Your task to perform on an android device: Search for "macbook air" on ebay.com, select the first entry, and add it to the cart. Image 0: 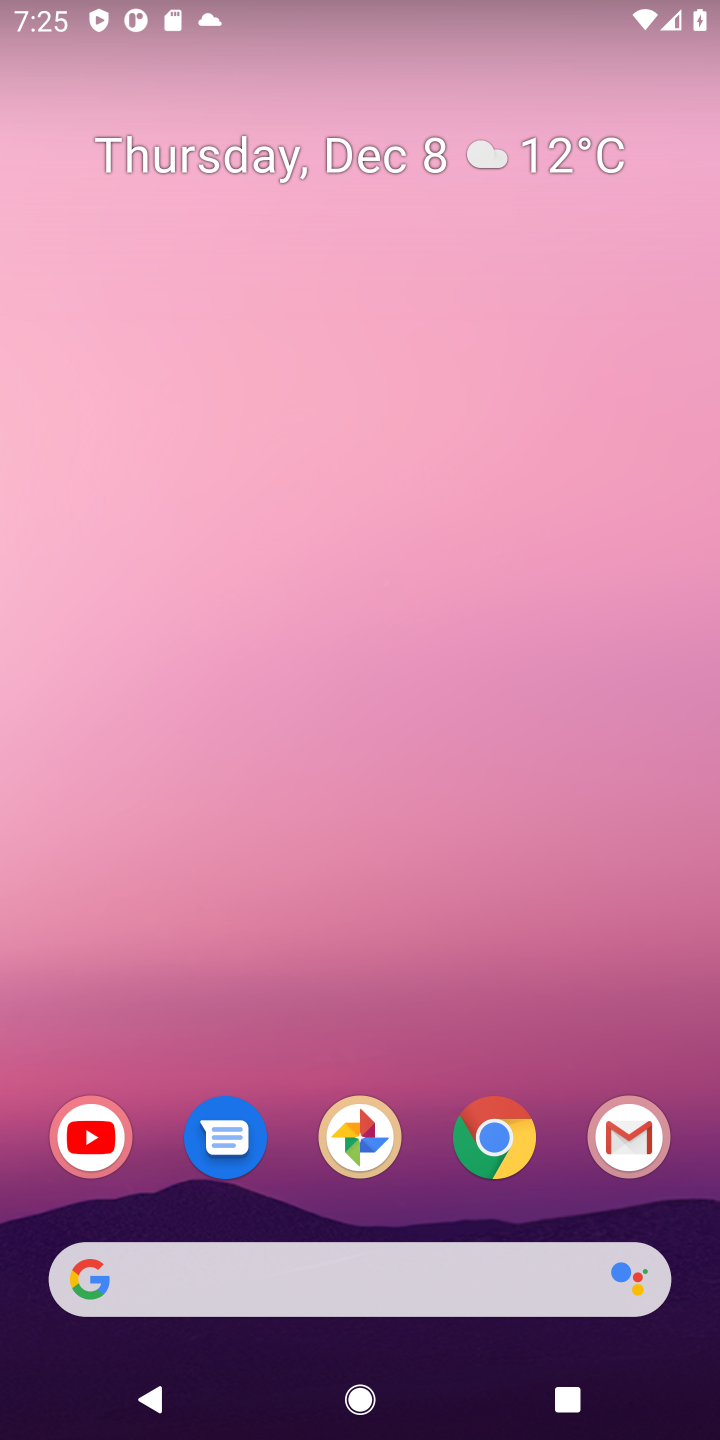
Step 0: click (501, 1154)
Your task to perform on an android device: Search for "macbook air" on ebay.com, select the first entry, and add it to the cart. Image 1: 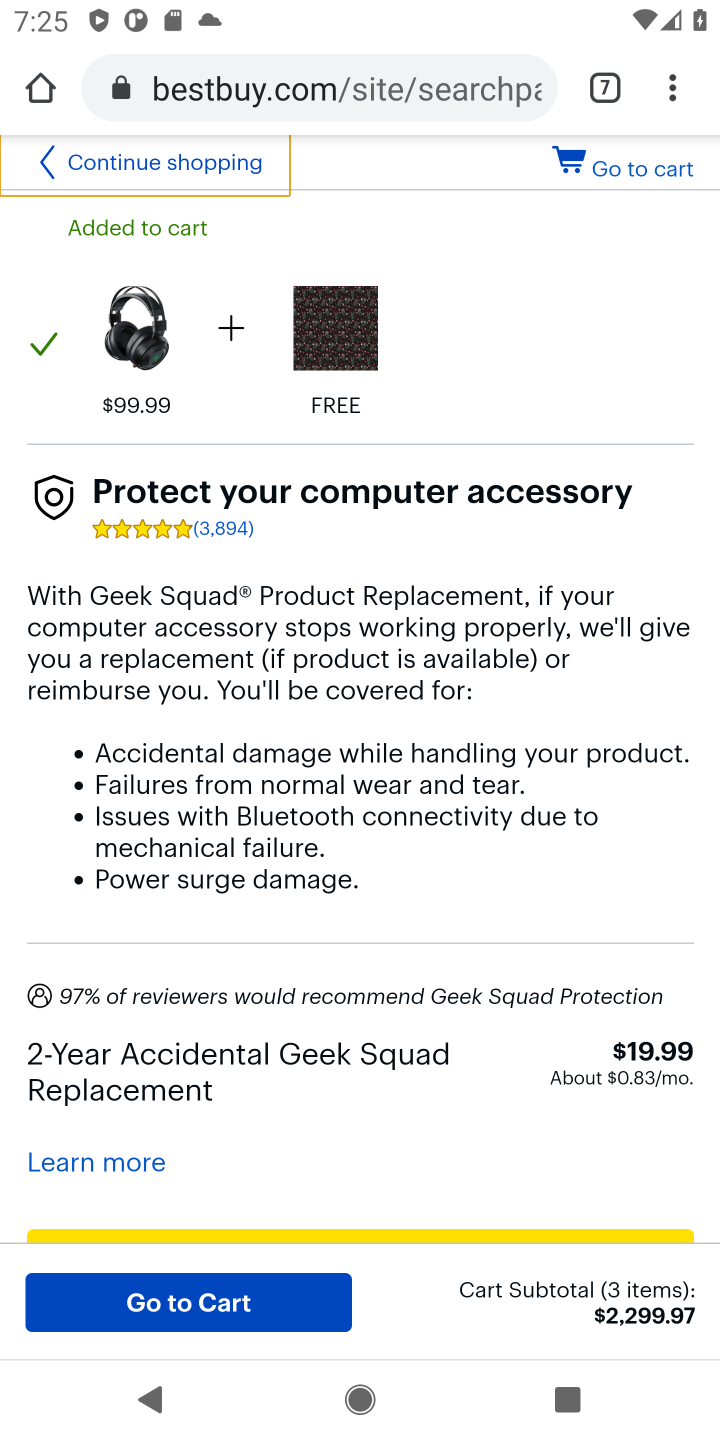
Step 1: click (192, 156)
Your task to perform on an android device: Search for "macbook air" on ebay.com, select the first entry, and add it to the cart. Image 2: 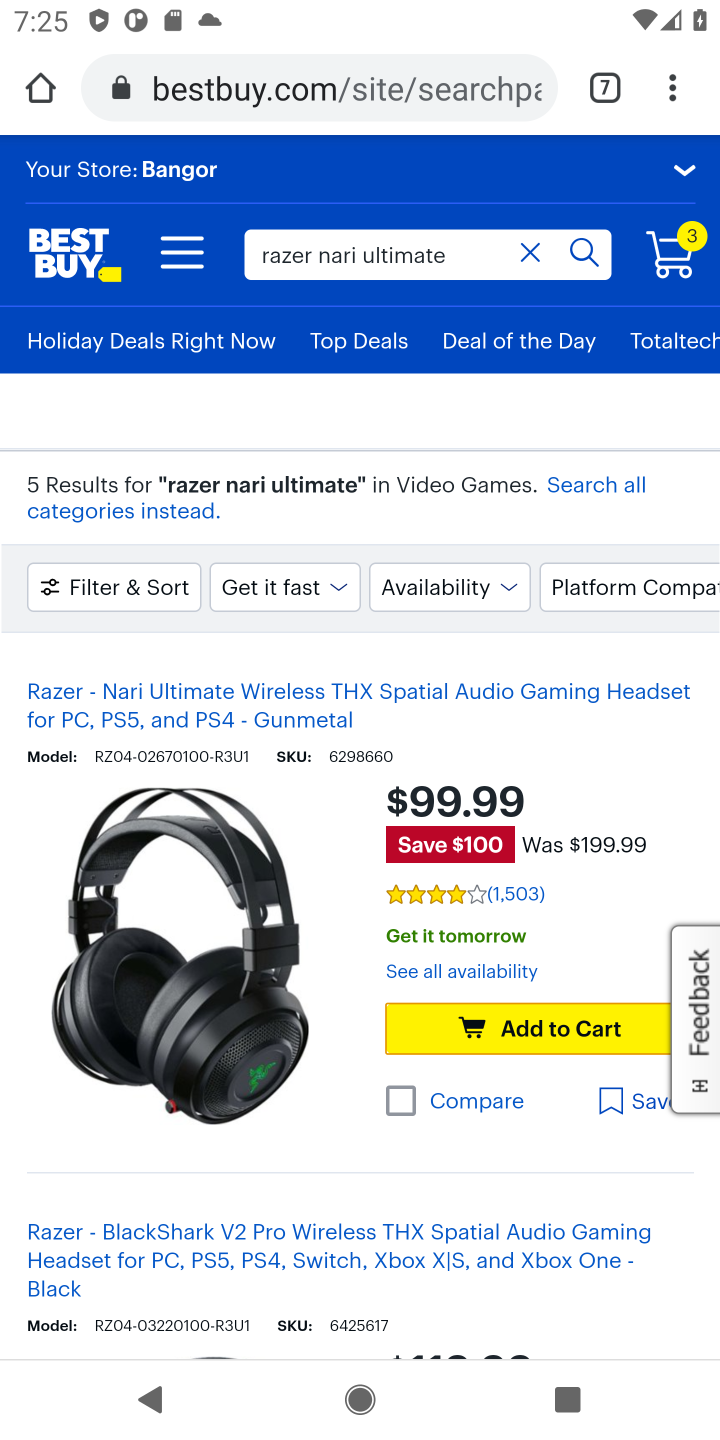
Step 2: click (608, 90)
Your task to perform on an android device: Search for "macbook air" on ebay.com, select the first entry, and add it to the cart. Image 3: 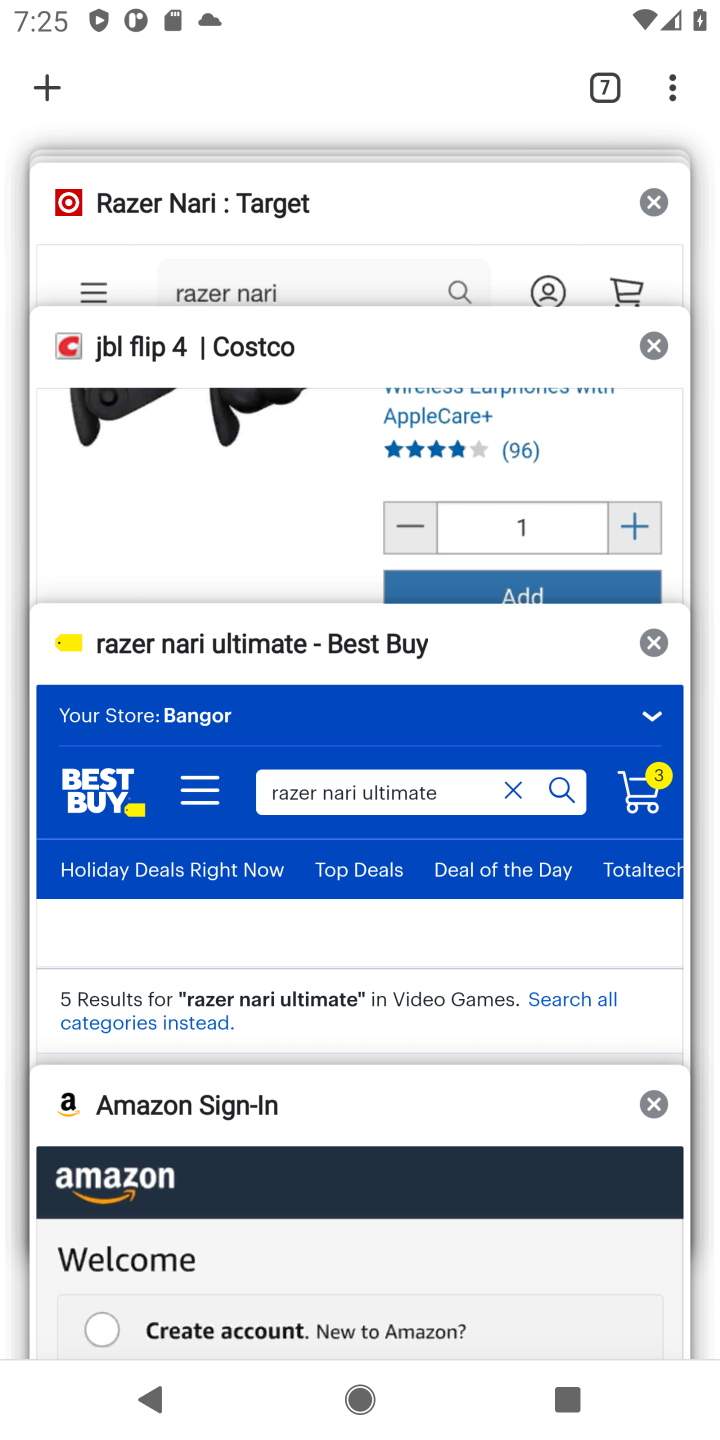
Step 3: drag from (454, 188) to (471, 679)
Your task to perform on an android device: Search for "macbook air" on ebay.com, select the first entry, and add it to the cart. Image 4: 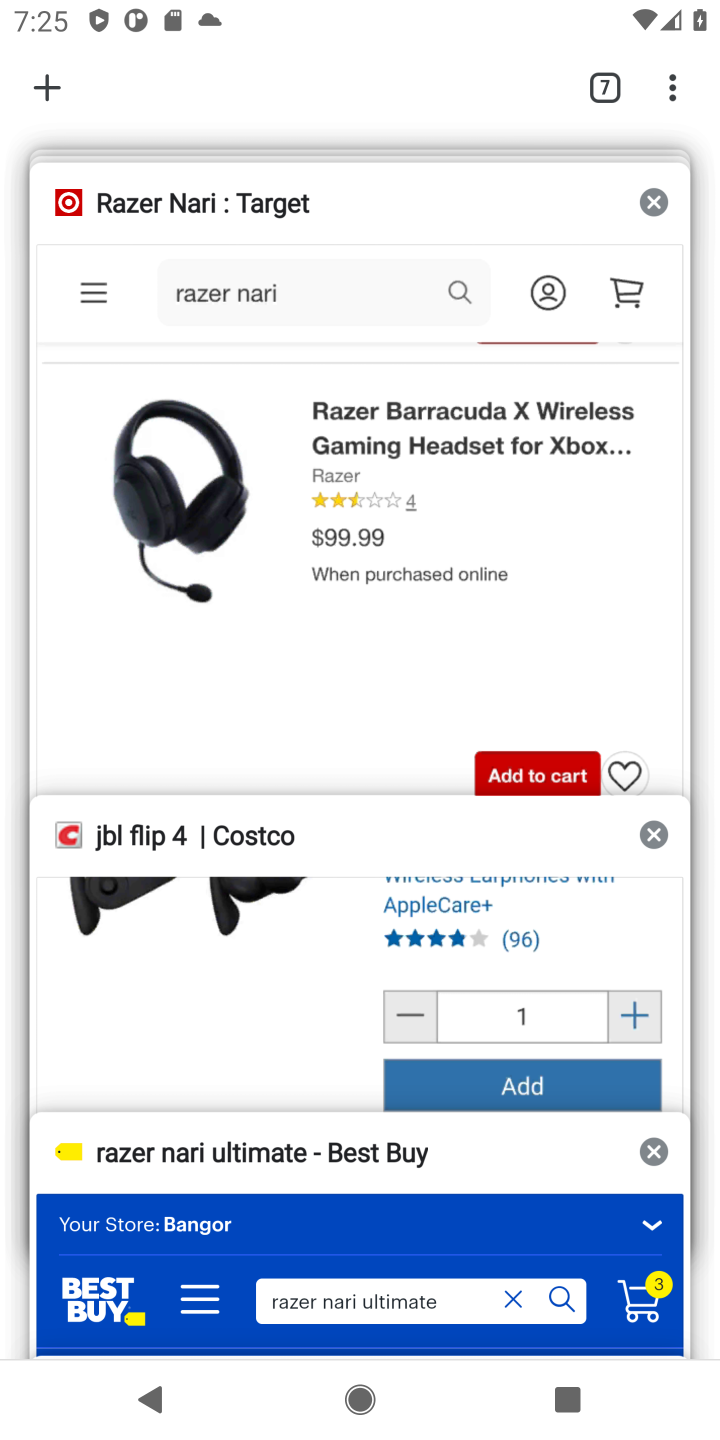
Step 4: drag from (461, 160) to (245, 706)
Your task to perform on an android device: Search for "macbook air" on ebay.com, select the first entry, and add it to the cart. Image 5: 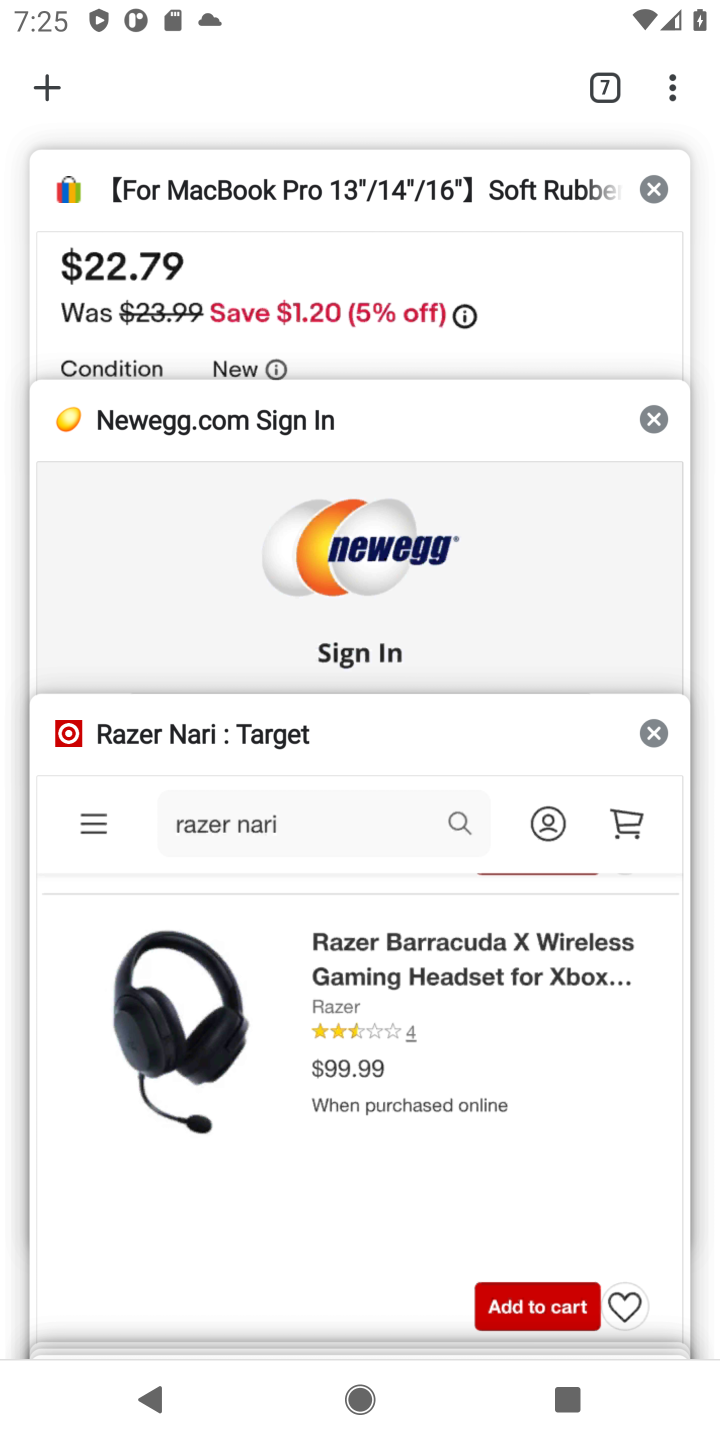
Step 5: click (373, 225)
Your task to perform on an android device: Search for "macbook air" on ebay.com, select the first entry, and add it to the cart. Image 6: 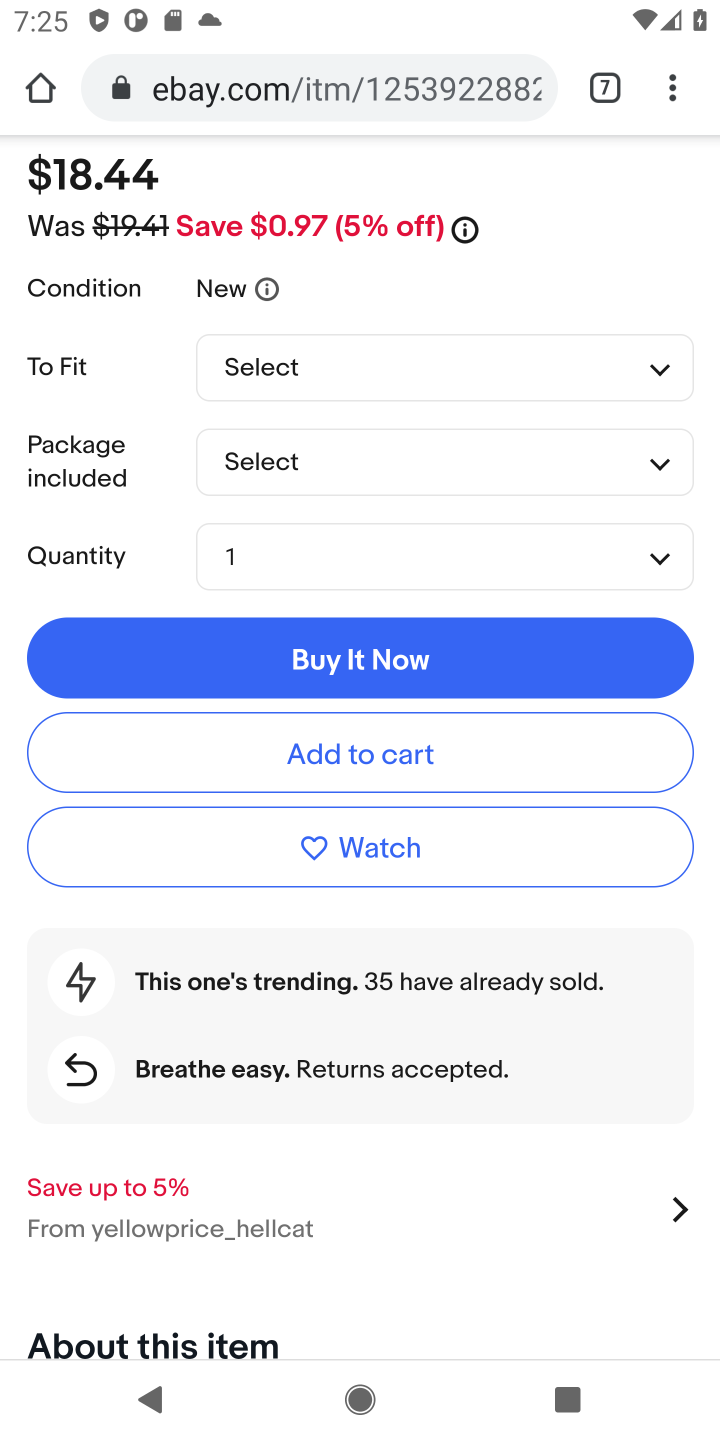
Step 6: drag from (554, 220) to (410, 792)
Your task to perform on an android device: Search for "macbook air" on ebay.com, select the first entry, and add it to the cart. Image 7: 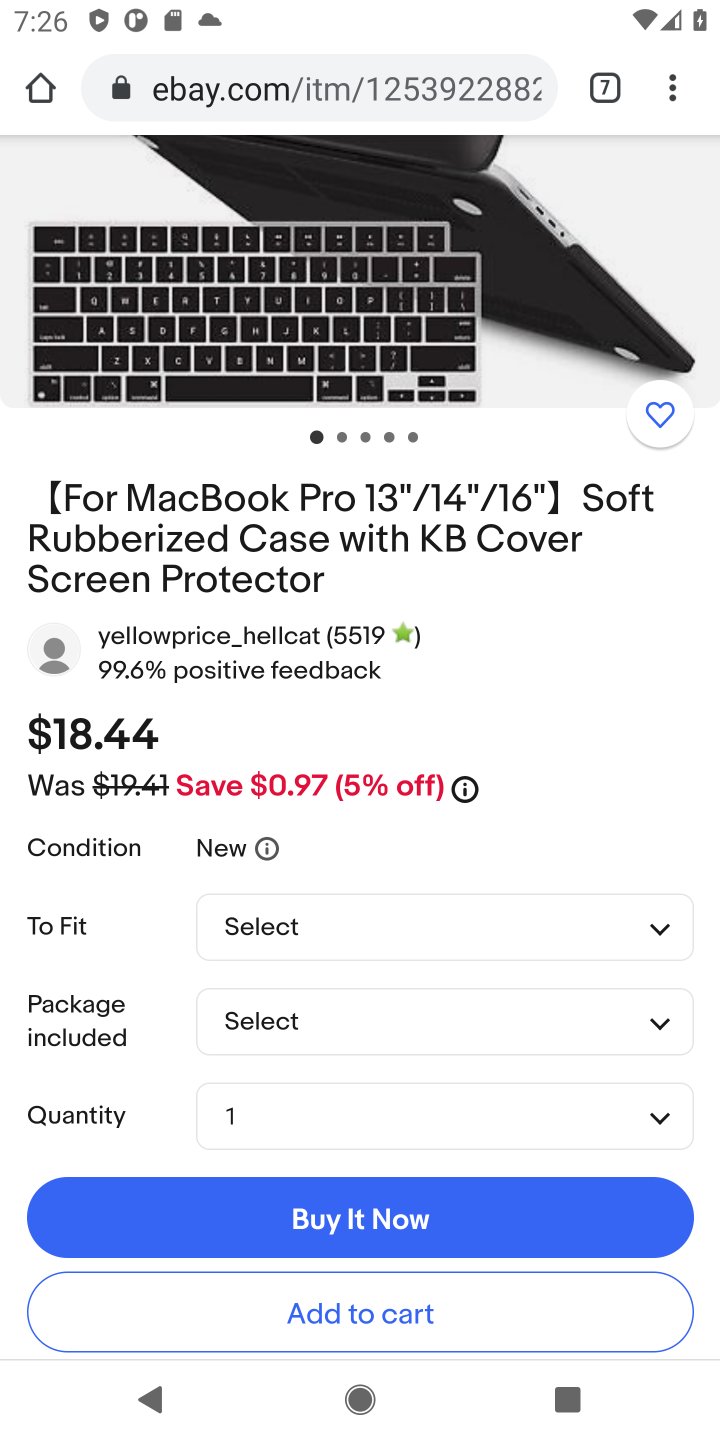
Step 7: drag from (561, 192) to (337, 940)
Your task to perform on an android device: Search for "macbook air" on ebay.com, select the first entry, and add it to the cart. Image 8: 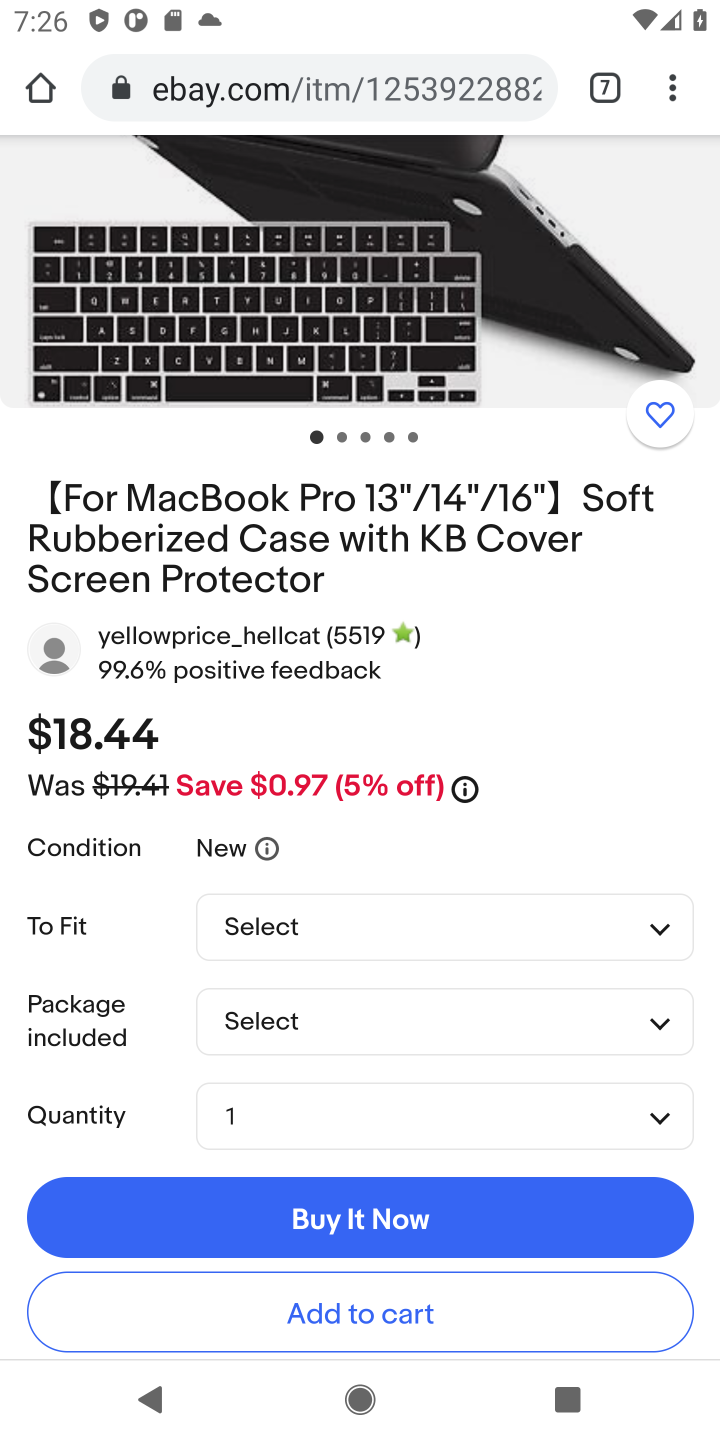
Step 8: drag from (494, 269) to (343, 1196)
Your task to perform on an android device: Search for "macbook air" on ebay.com, select the first entry, and add it to the cart. Image 9: 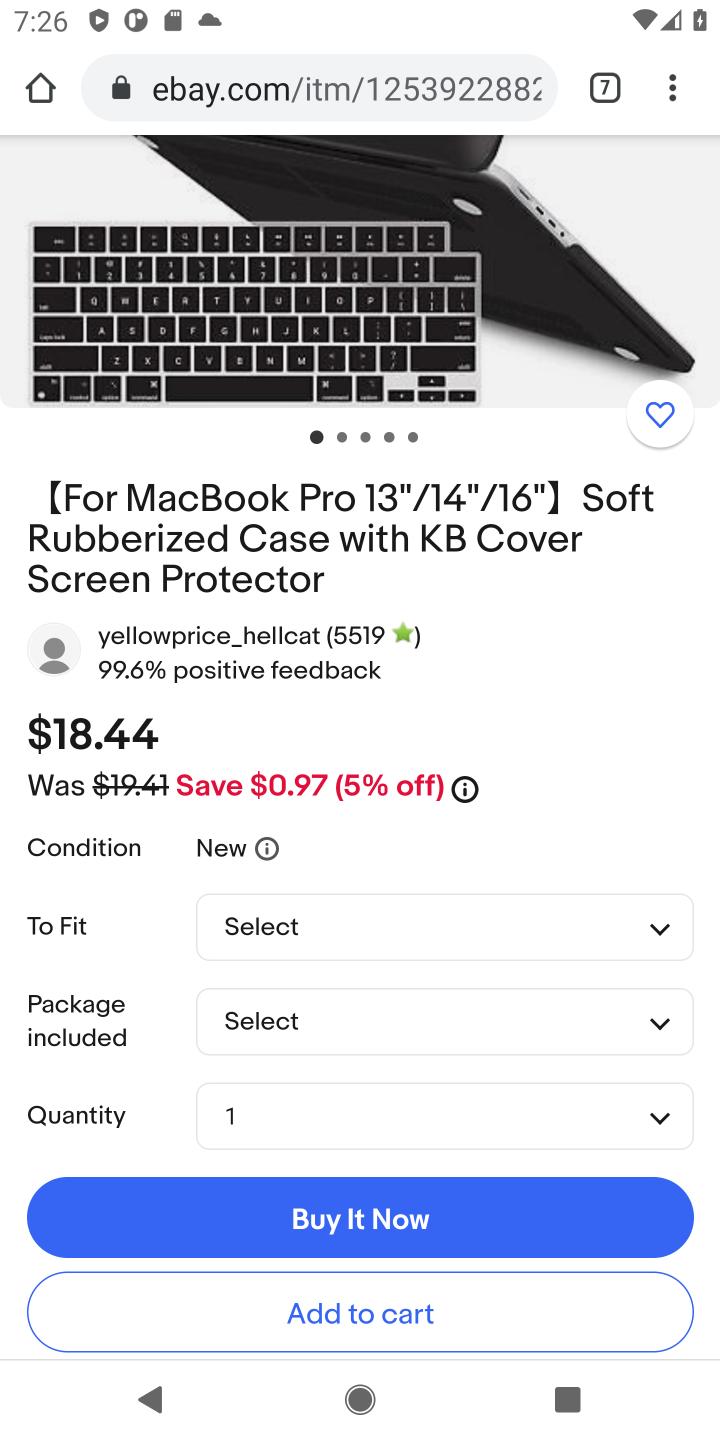
Step 9: drag from (583, 224) to (383, 1415)
Your task to perform on an android device: Search for "macbook air" on ebay.com, select the first entry, and add it to the cart. Image 10: 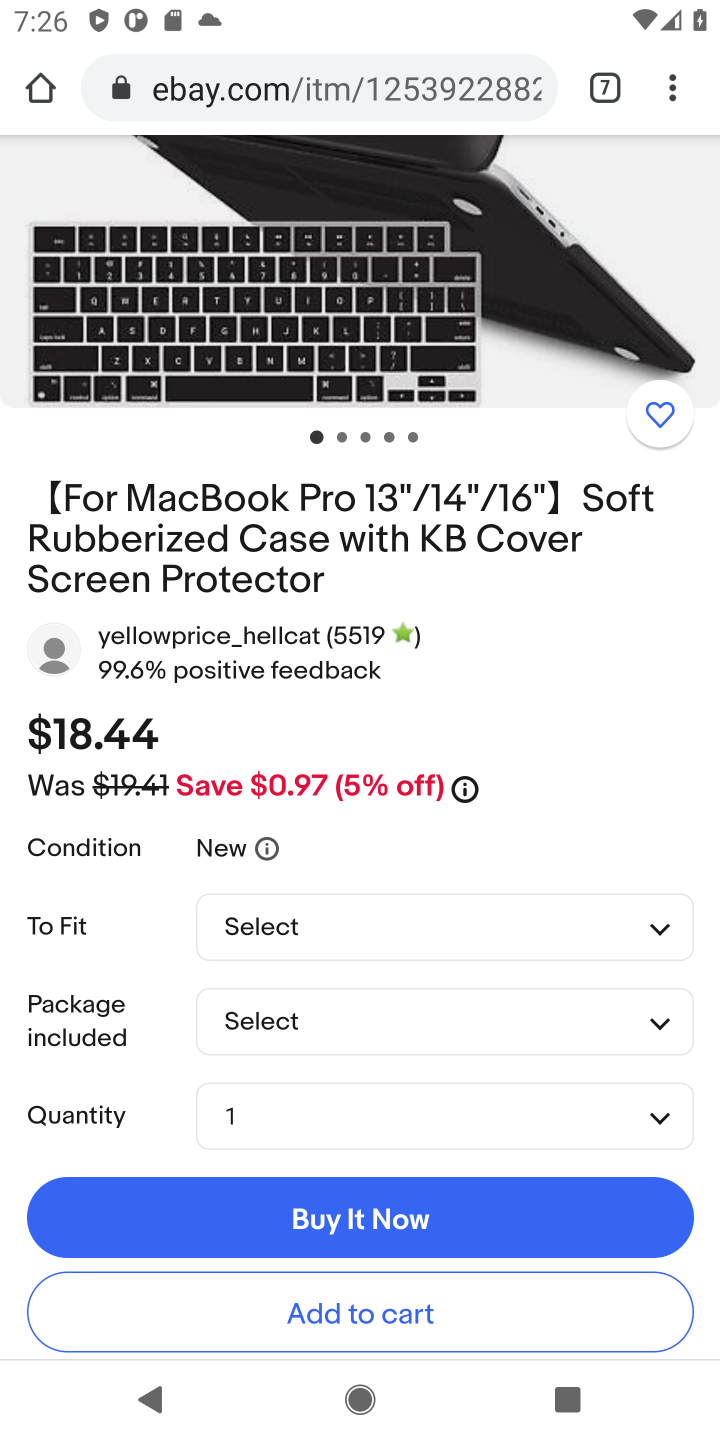
Step 10: drag from (596, 168) to (466, 894)
Your task to perform on an android device: Search for "macbook air" on ebay.com, select the first entry, and add it to the cart. Image 11: 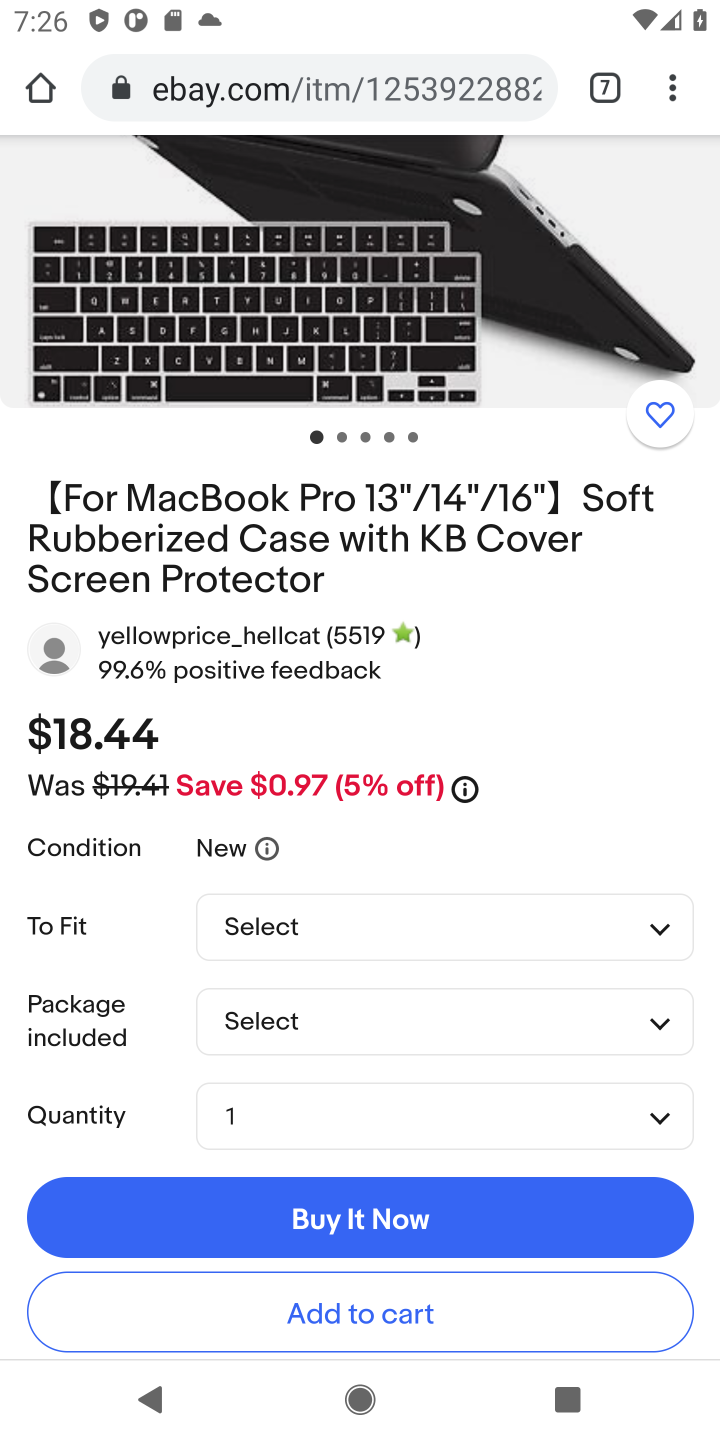
Step 11: drag from (540, 268) to (269, 1290)
Your task to perform on an android device: Search for "macbook air" on ebay.com, select the first entry, and add it to the cart. Image 12: 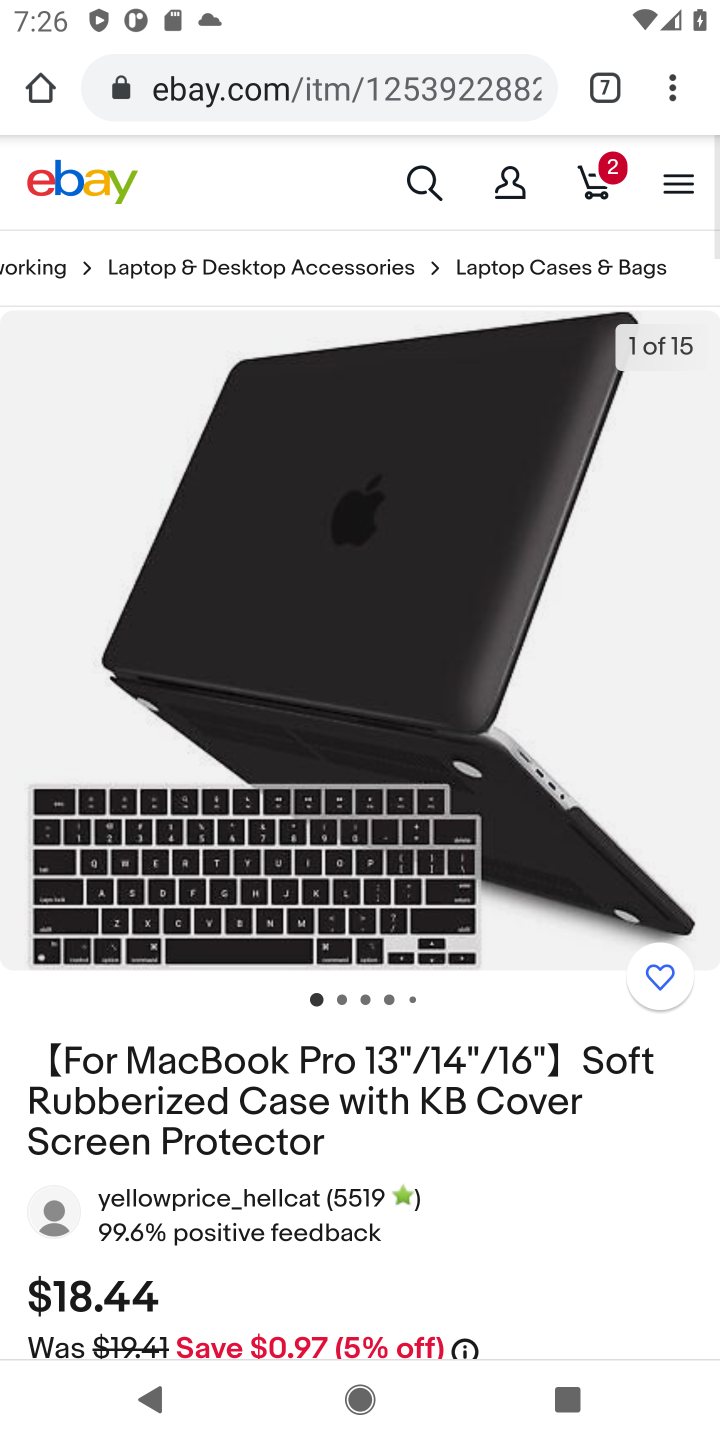
Step 12: click (423, 200)
Your task to perform on an android device: Search for "macbook air" on ebay.com, select the first entry, and add it to the cart. Image 13: 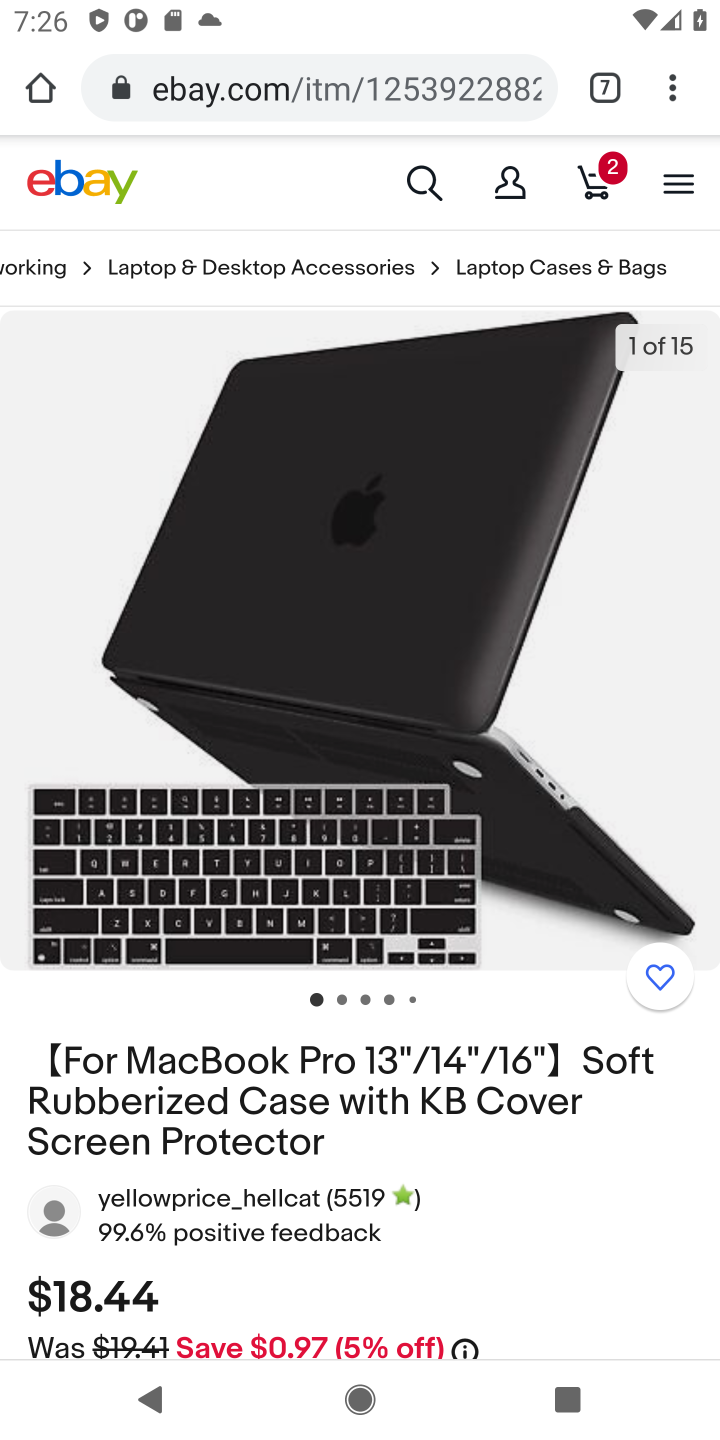
Step 13: click (420, 189)
Your task to perform on an android device: Search for "macbook air" on ebay.com, select the first entry, and add it to the cart. Image 14: 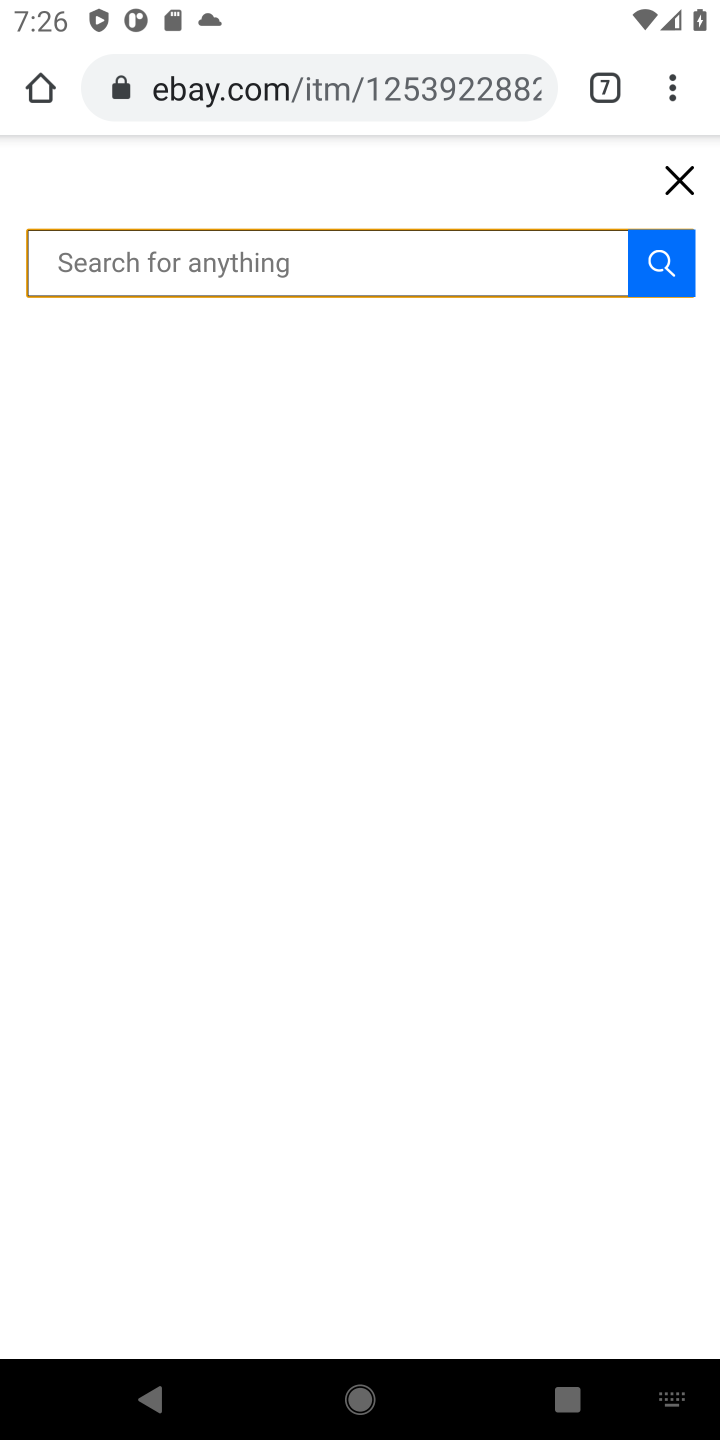
Step 14: type "macbook air"
Your task to perform on an android device: Search for "macbook air" on ebay.com, select the first entry, and add it to the cart. Image 15: 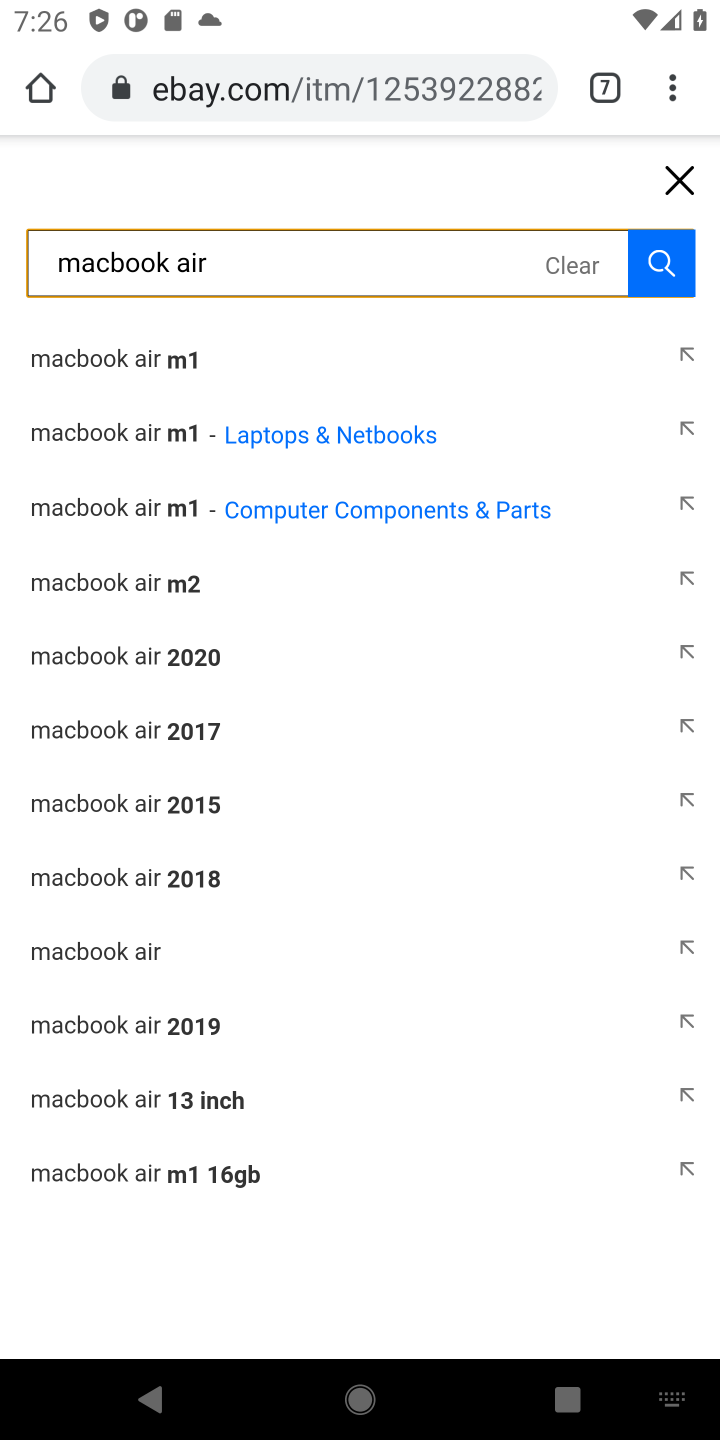
Step 15: click (137, 441)
Your task to perform on an android device: Search for "macbook air" on ebay.com, select the first entry, and add it to the cart. Image 16: 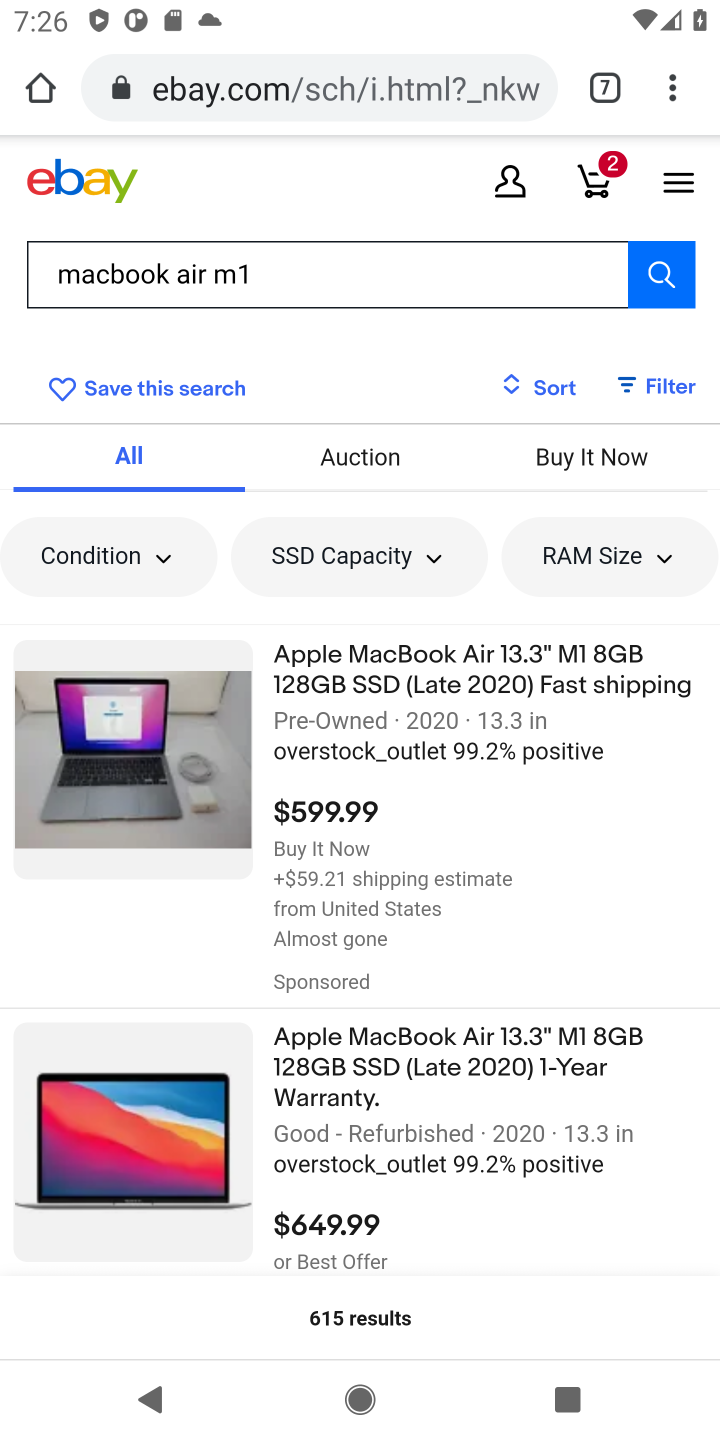
Step 16: click (393, 725)
Your task to perform on an android device: Search for "macbook air" on ebay.com, select the first entry, and add it to the cart. Image 17: 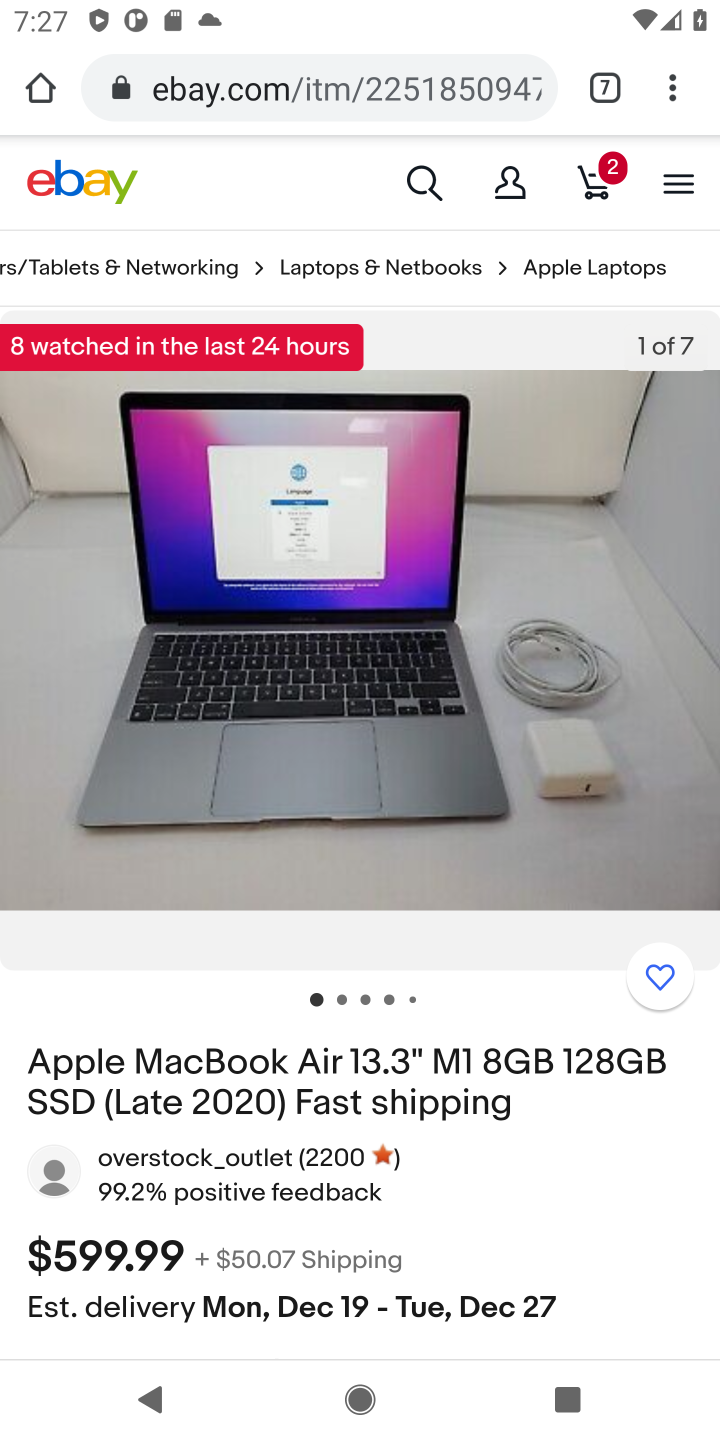
Step 17: drag from (499, 1195) to (593, 416)
Your task to perform on an android device: Search for "macbook air" on ebay.com, select the first entry, and add it to the cart. Image 18: 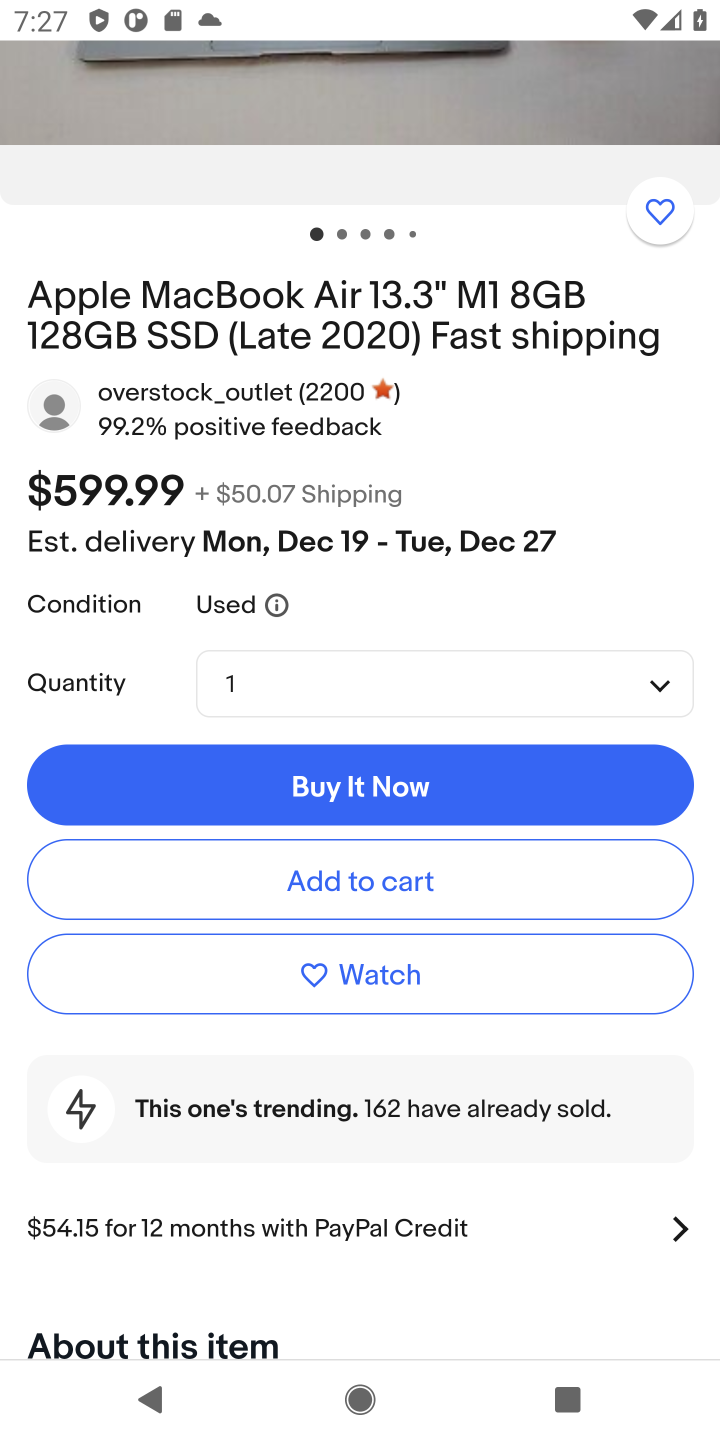
Step 18: click (477, 885)
Your task to perform on an android device: Search for "macbook air" on ebay.com, select the first entry, and add it to the cart. Image 19: 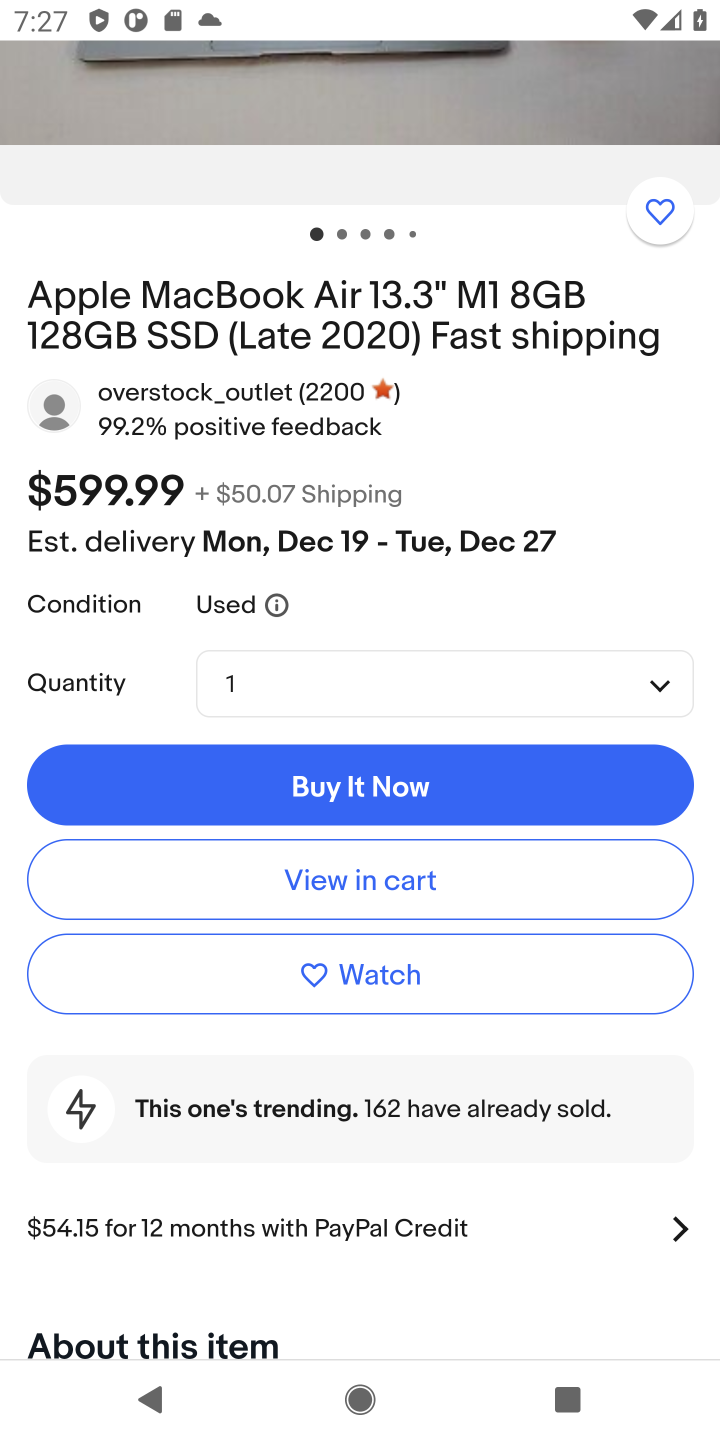
Step 19: task complete